Your task to perform on an android device: Add bose soundlink to the cart on bestbuy.com Image 0: 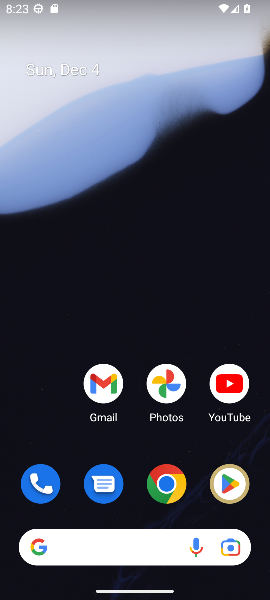
Step 0: click (162, 494)
Your task to perform on an android device: Add bose soundlink to the cart on bestbuy.com Image 1: 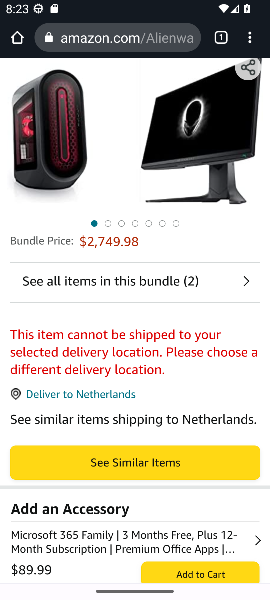
Step 1: click (122, 42)
Your task to perform on an android device: Add bose soundlink to the cart on bestbuy.com Image 2: 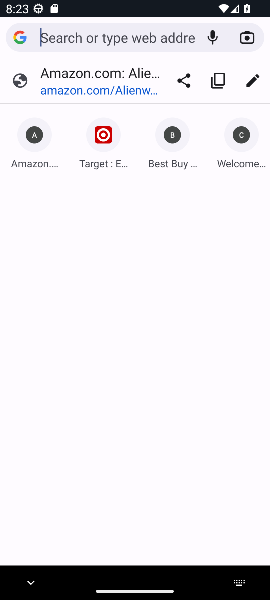
Step 2: click (173, 152)
Your task to perform on an android device: Add bose soundlink to the cart on bestbuy.com Image 3: 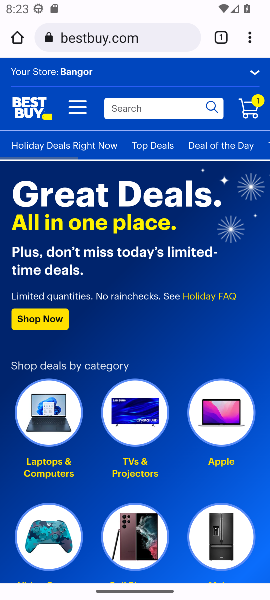
Step 3: click (146, 106)
Your task to perform on an android device: Add bose soundlink to the cart on bestbuy.com Image 4: 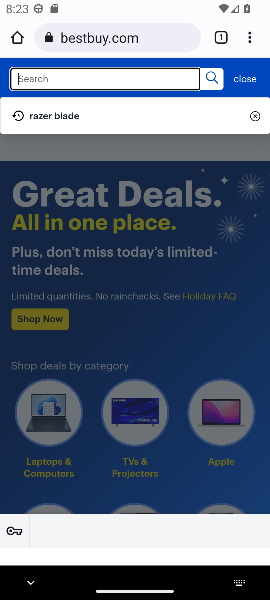
Step 4: type "bose soundlink"
Your task to perform on an android device: Add bose soundlink to the cart on bestbuy.com Image 5: 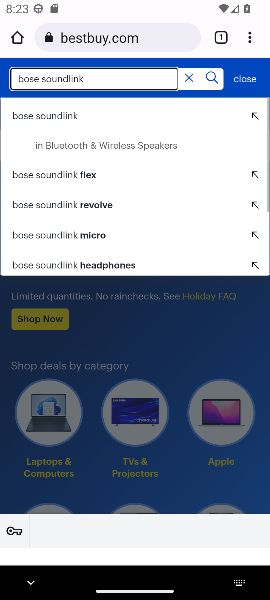
Step 5: click (50, 120)
Your task to perform on an android device: Add bose soundlink to the cart on bestbuy.com Image 6: 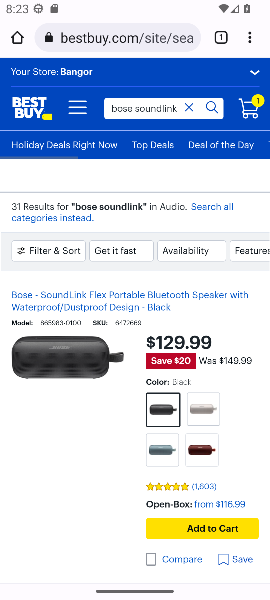
Step 6: drag from (62, 421) to (82, 283)
Your task to perform on an android device: Add bose soundlink to the cart on bestbuy.com Image 7: 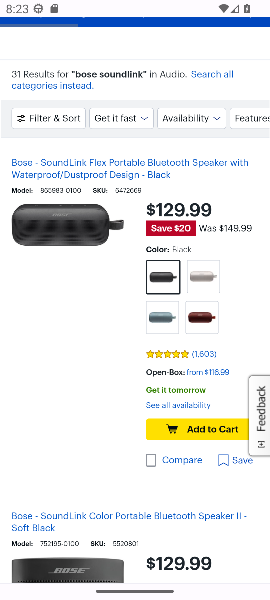
Step 7: click (217, 430)
Your task to perform on an android device: Add bose soundlink to the cart on bestbuy.com Image 8: 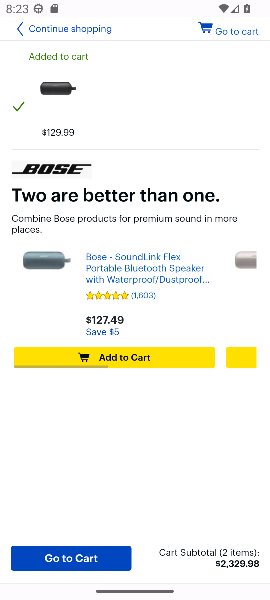
Step 8: task complete